Your task to perform on an android device: What's the weather going to be this weekend? Image 0: 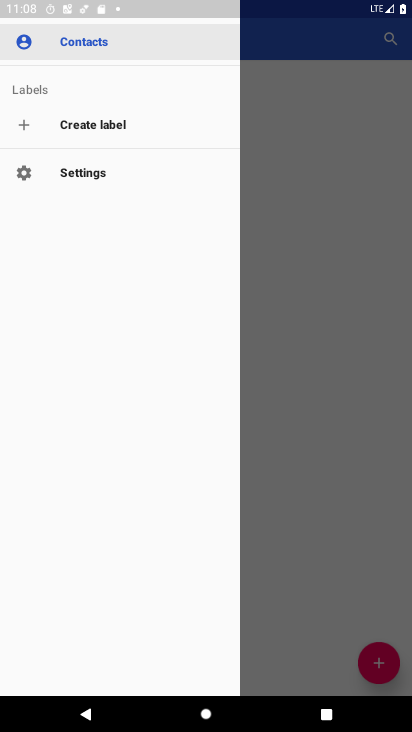
Step 0: press home button
Your task to perform on an android device: What's the weather going to be this weekend? Image 1: 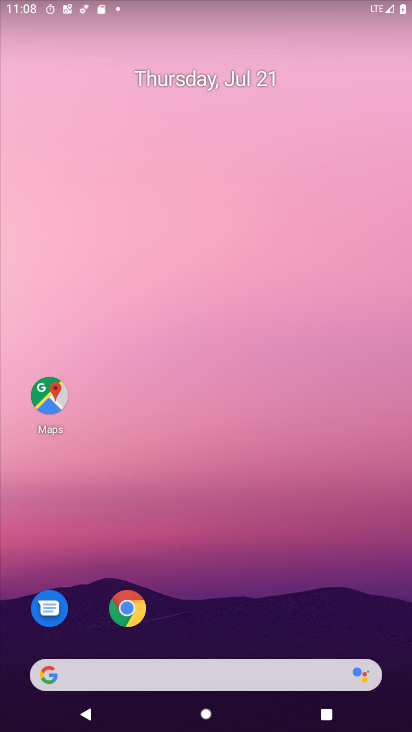
Step 1: drag from (184, 540) to (234, 72)
Your task to perform on an android device: What's the weather going to be this weekend? Image 2: 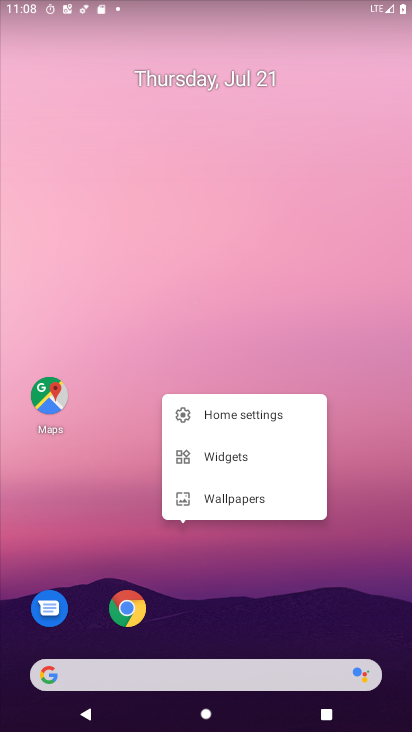
Step 2: click (293, 194)
Your task to perform on an android device: What's the weather going to be this weekend? Image 3: 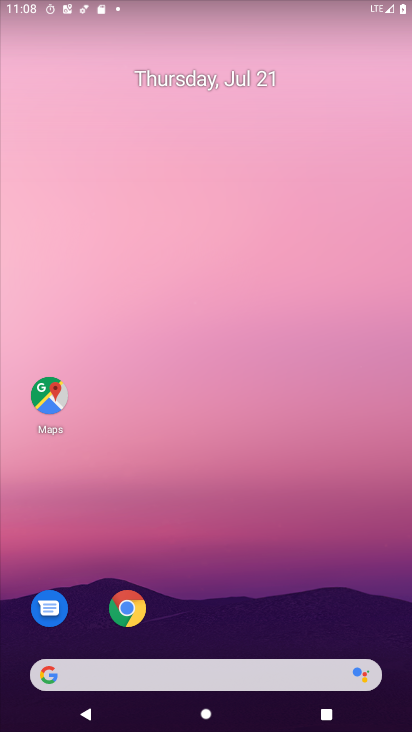
Step 3: drag from (207, 601) to (236, 144)
Your task to perform on an android device: What's the weather going to be this weekend? Image 4: 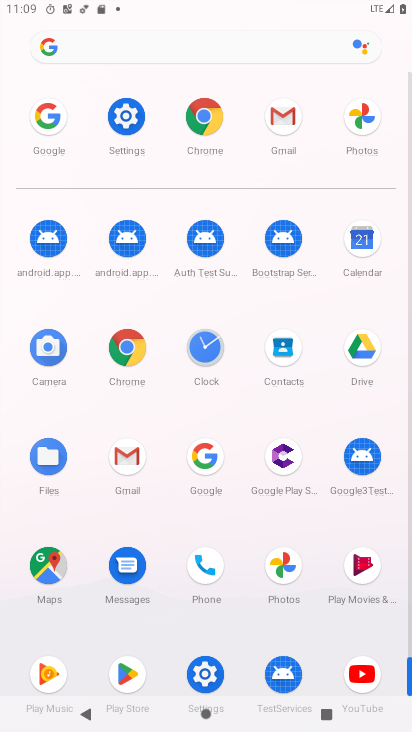
Step 4: click (207, 472)
Your task to perform on an android device: What's the weather going to be this weekend? Image 5: 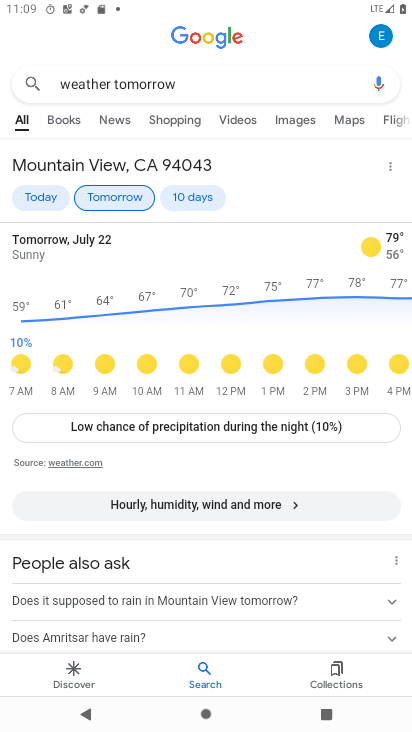
Step 5: click (196, 196)
Your task to perform on an android device: What's the weather going to be this weekend? Image 6: 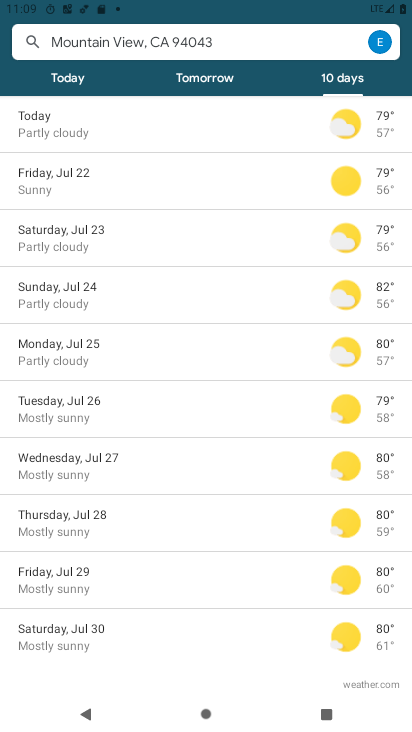
Step 6: task complete